Your task to perform on an android device: change the clock display to analog Image 0: 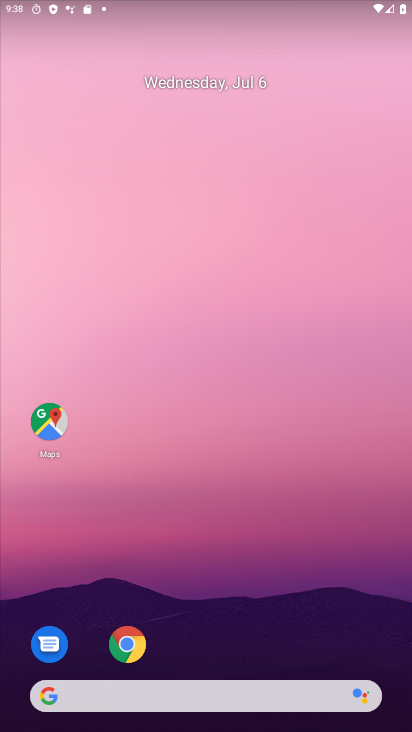
Step 0: drag from (218, 402) to (183, 278)
Your task to perform on an android device: change the clock display to analog Image 1: 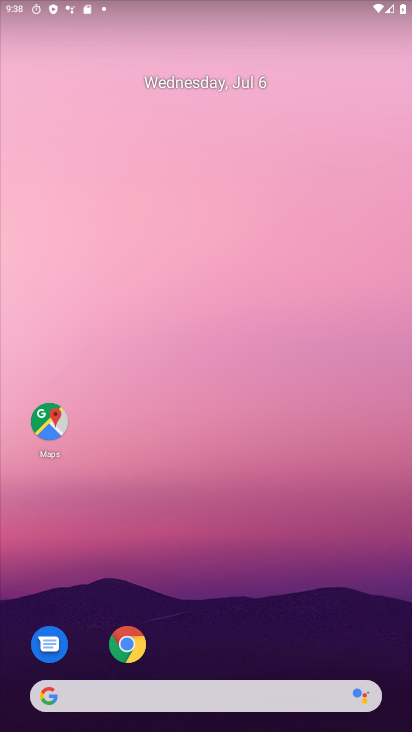
Step 1: drag from (204, 627) to (148, 156)
Your task to perform on an android device: change the clock display to analog Image 2: 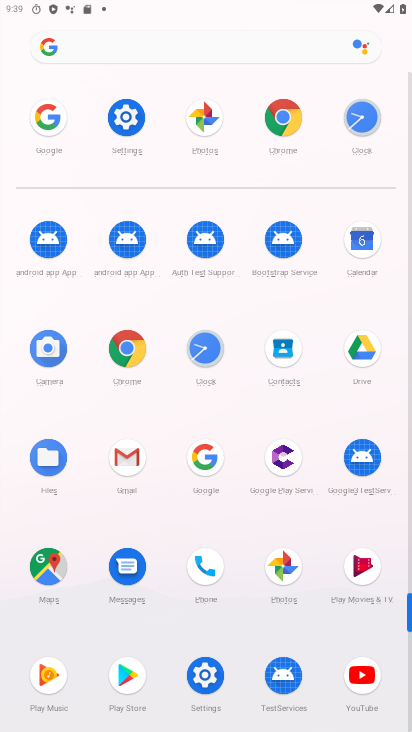
Step 2: click (217, 353)
Your task to perform on an android device: change the clock display to analog Image 3: 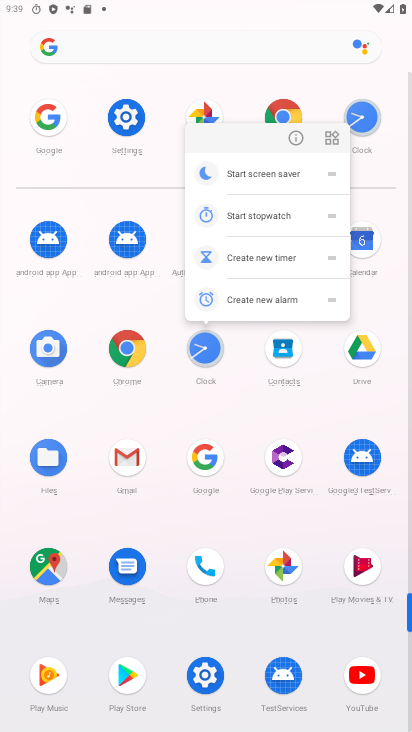
Step 3: click (208, 352)
Your task to perform on an android device: change the clock display to analog Image 4: 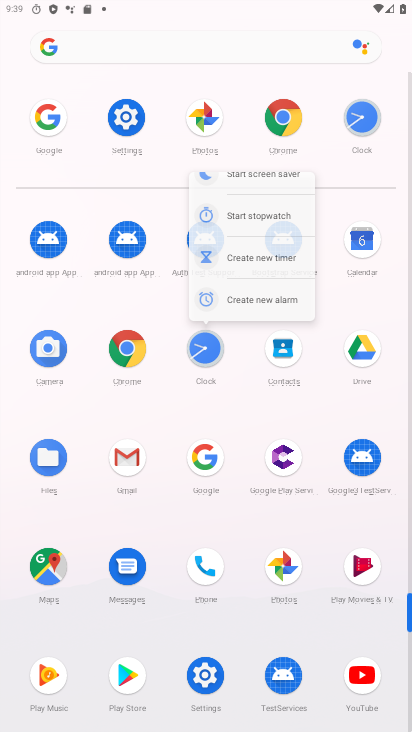
Step 4: click (209, 349)
Your task to perform on an android device: change the clock display to analog Image 5: 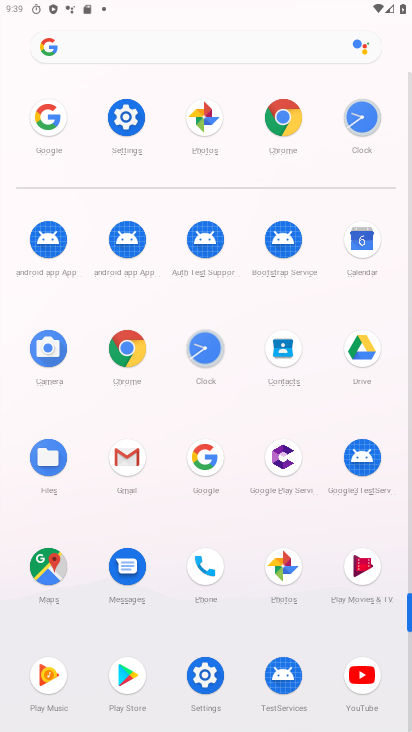
Step 5: click (211, 348)
Your task to perform on an android device: change the clock display to analog Image 6: 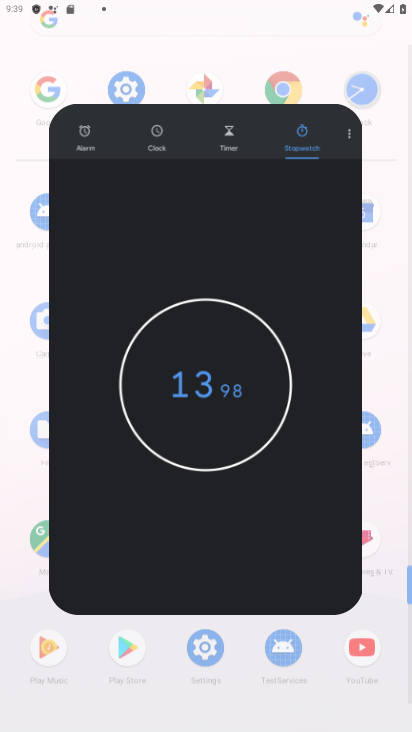
Step 6: click (211, 348)
Your task to perform on an android device: change the clock display to analog Image 7: 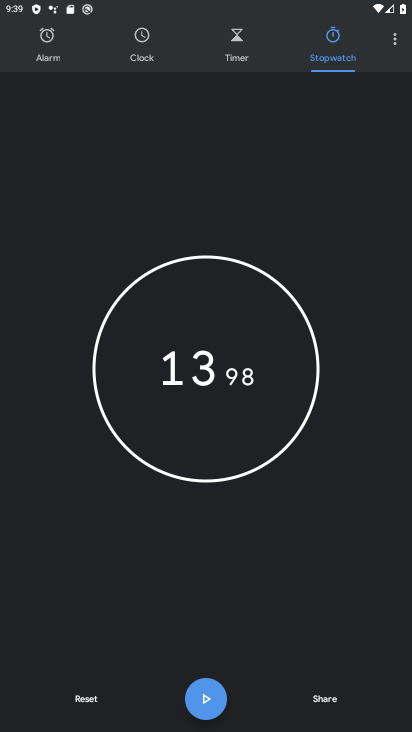
Step 7: click (213, 348)
Your task to perform on an android device: change the clock display to analog Image 8: 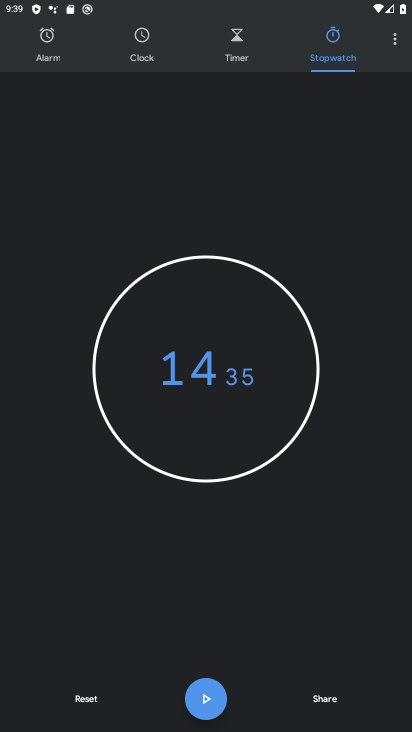
Step 8: click (396, 36)
Your task to perform on an android device: change the clock display to analog Image 9: 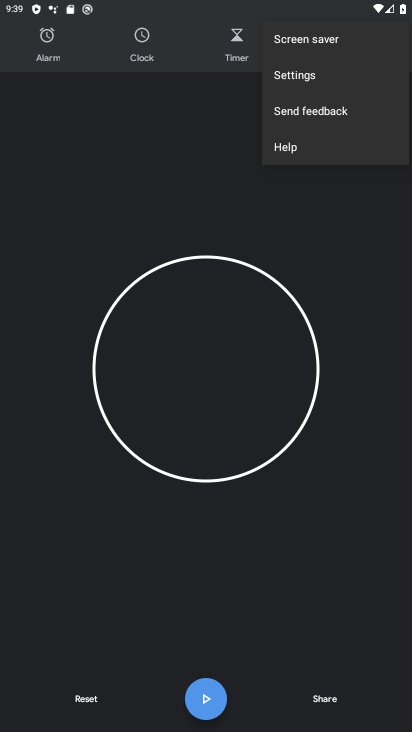
Step 9: click (287, 73)
Your task to perform on an android device: change the clock display to analog Image 10: 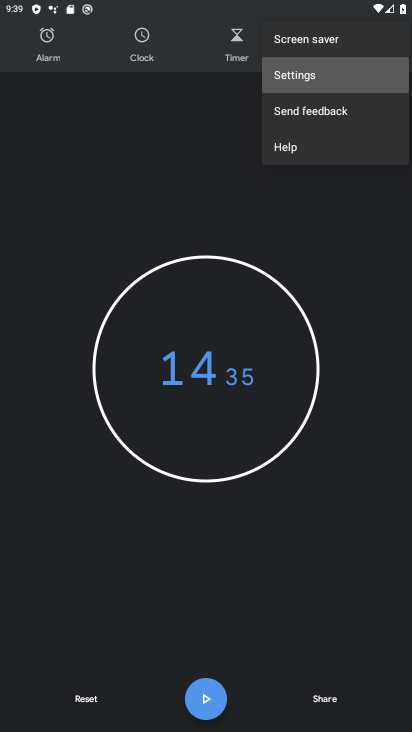
Step 10: click (288, 73)
Your task to perform on an android device: change the clock display to analog Image 11: 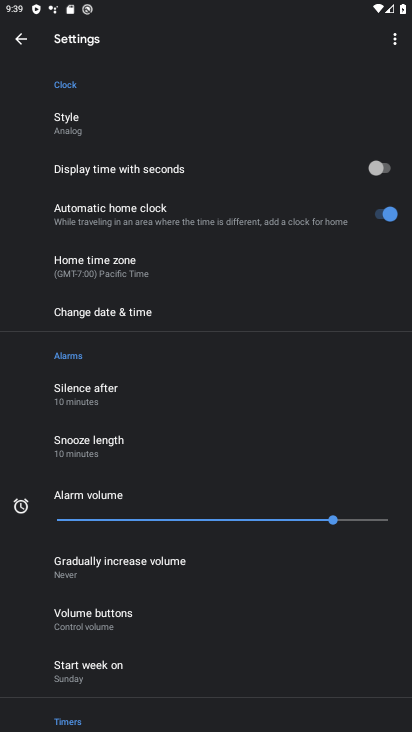
Step 11: click (75, 111)
Your task to perform on an android device: change the clock display to analog Image 12: 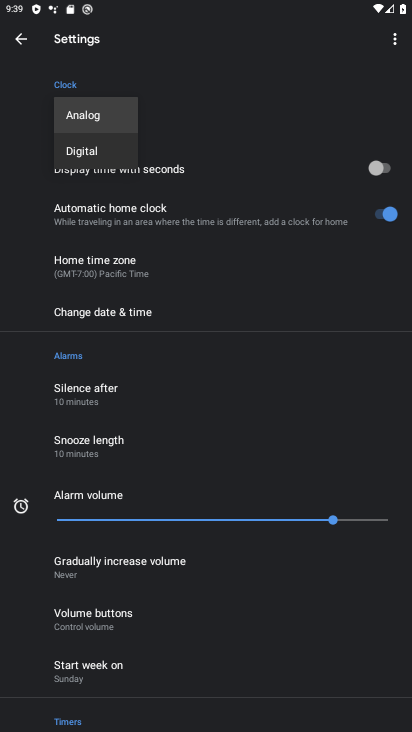
Step 12: click (93, 104)
Your task to perform on an android device: change the clock display to analog Image 13: 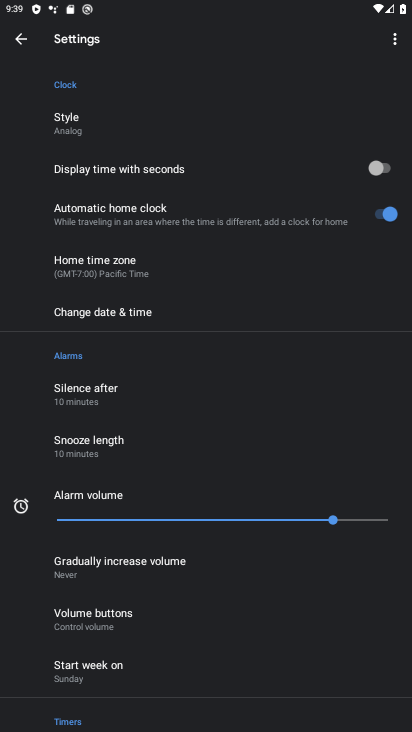
Step 13: task complete